Your task to perform on an android device: Open Maps and search for coffee Image 0: 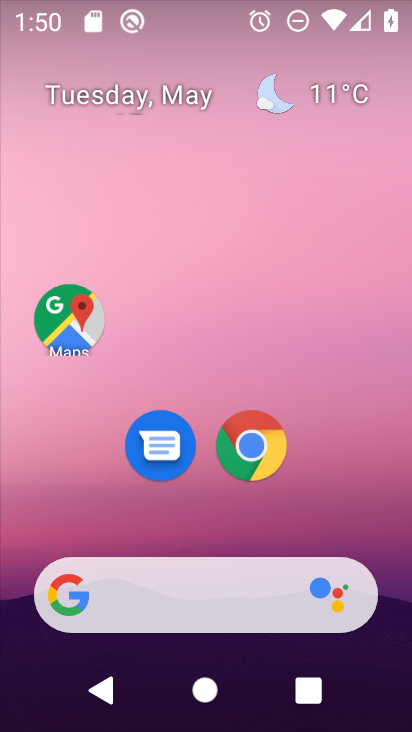
Step 0: click (90, 346)
Your task to perform on an android device: Open Maps and search for coffee Image 1: 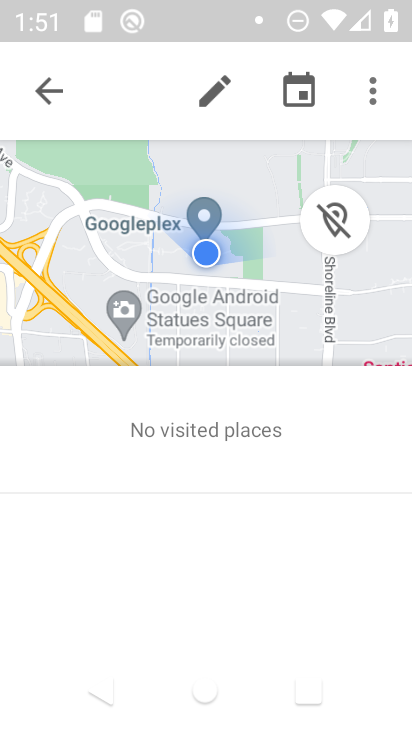
Step 1: click (58, 99)
Your task to perform on an android device: Open Maps and search for coffee Image 2: 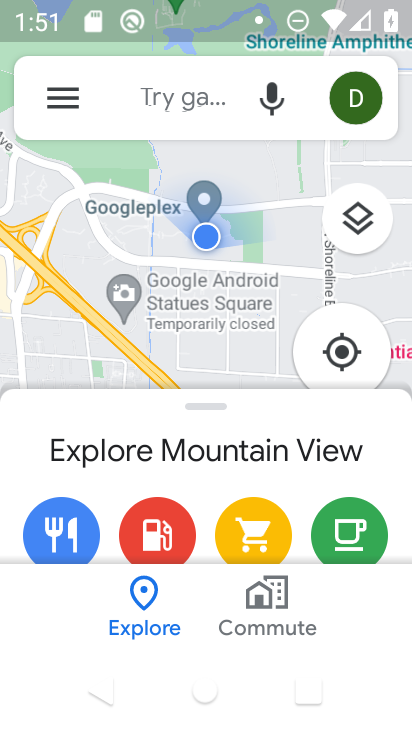
Step 2: click (165, 111)
Your task to perform on an android device: Open Maps and search for coffee Image 3: 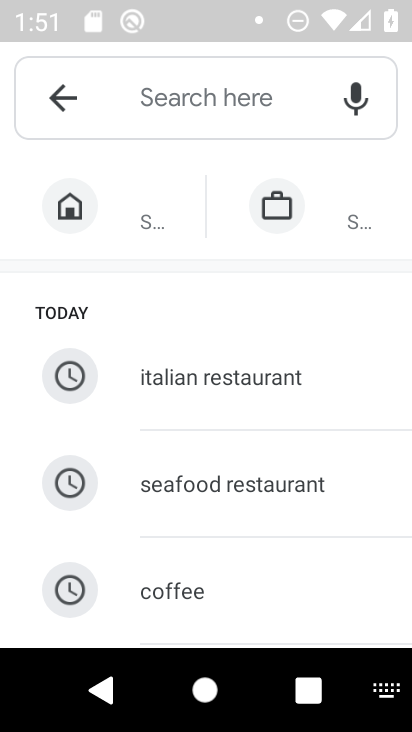
Step 3: click (210, 587)
Your task to perform on an android device: Open Maps and search for coffee Image 4: 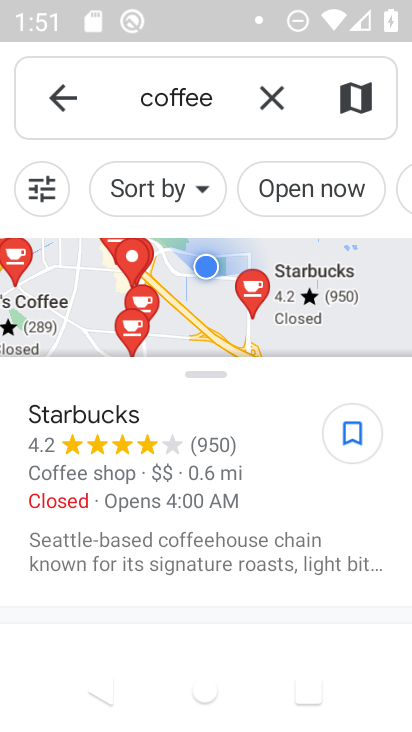
Step 4: task complete